Your task to perform on an android device: toggle priority inbox in the gmail app Image 0: 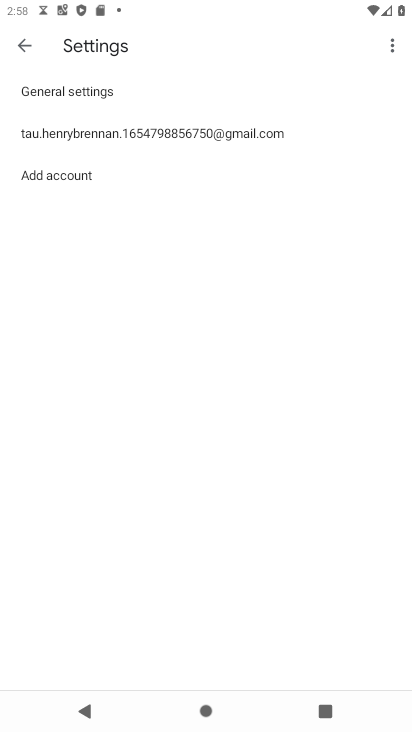
Step 0: press home button
Your task to perform on an android device: toggle priority inbox in the gmail app Image 1: 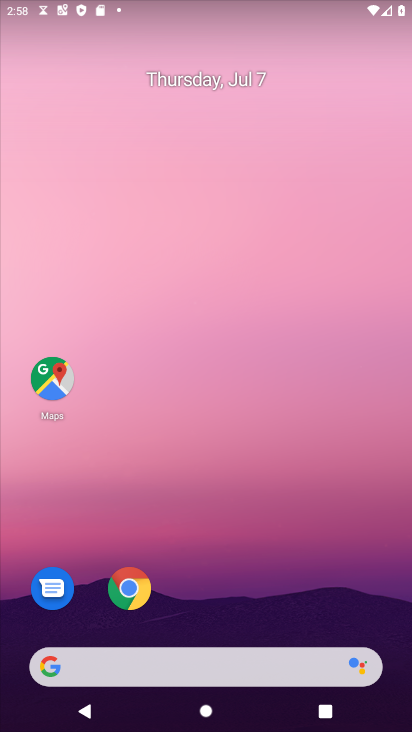
Step 1: drag from (240, 593) to (215, 131)
Your task to perform on an android device: toggle priority inbox in the gmail app Image 2: 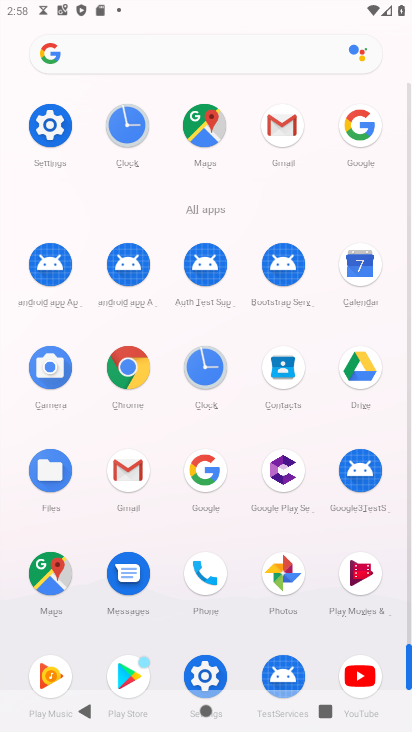
Step 2: click (282, 124)
Your task to perform on an android device: toggle priority inbox in the gmail app Image 3: 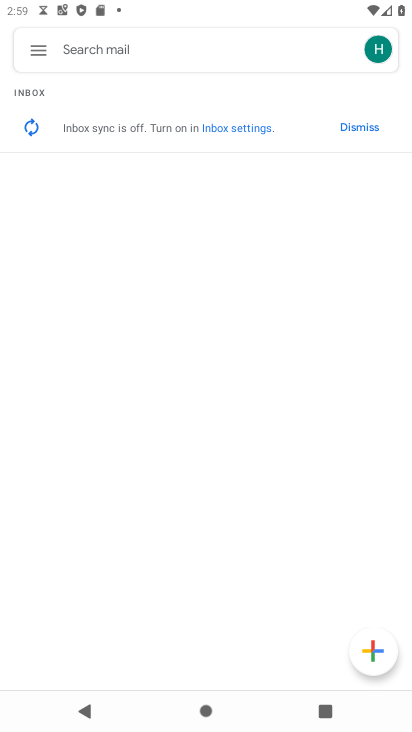
Step 3: click (45, 49)
Your task to perform on an android device: toggle priority inbox in the gmail app Image 4: 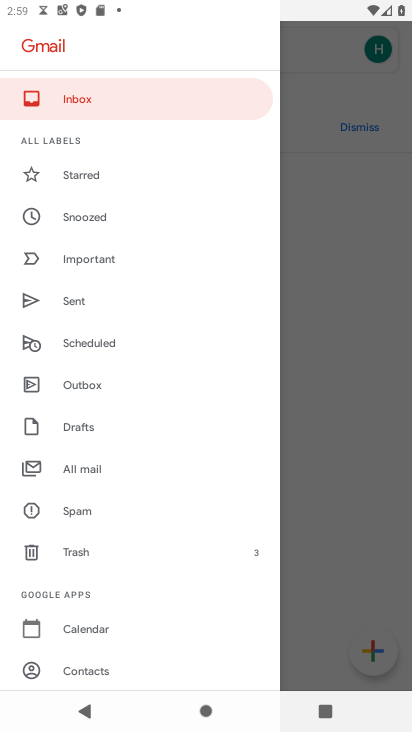
Step 4: drag from (106, 611) to (135, 505)
Your task to perform on an android device: toggle priority inbox in the gmail app Image 5: 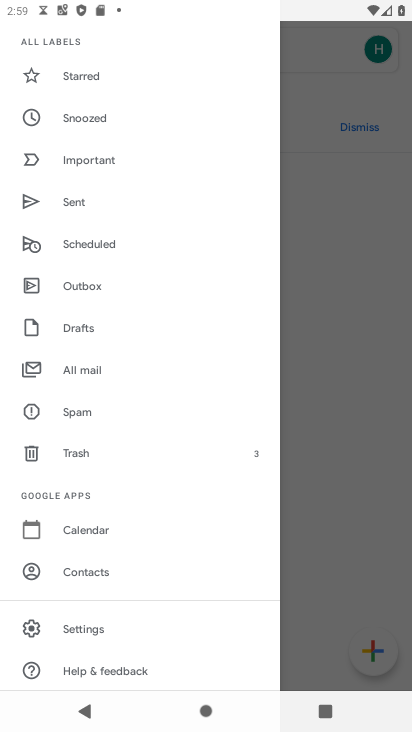
Step 5: click (81, 626)
Your task to perform on an android device: toggle priority inbox in the gmail app Image 6: 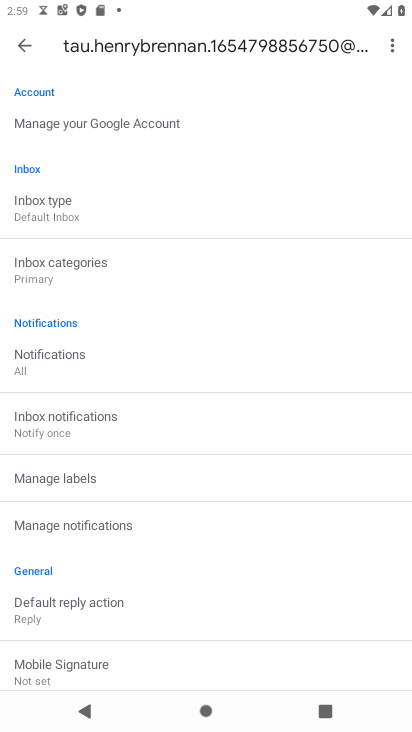
Step 6: drag from (95, 570) to (173, 450)
Your task to perform on an android device: toggle priority inbox in the gmail app Image 7: 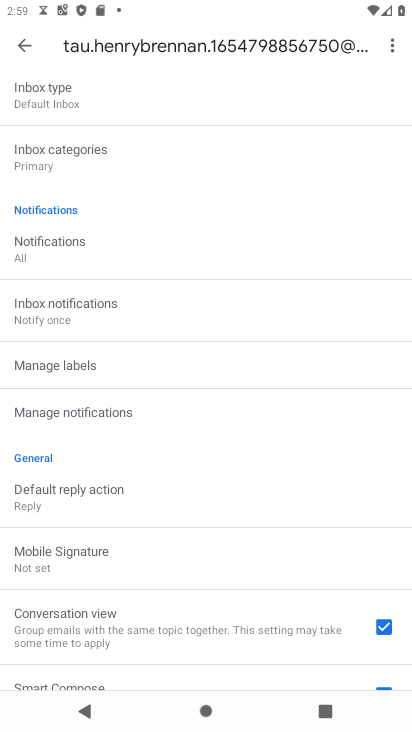
Step 7: click (70, 108)
Your task to perform on an android device: toggle priority inbox in the gmail app Image 8: 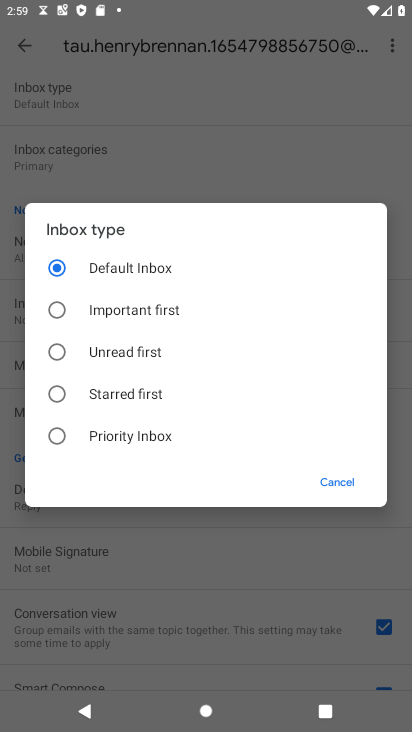
Step 8: click (62, 434)
Your task to perform on an android device: toggle priority inbox in the gmail app Image 9: 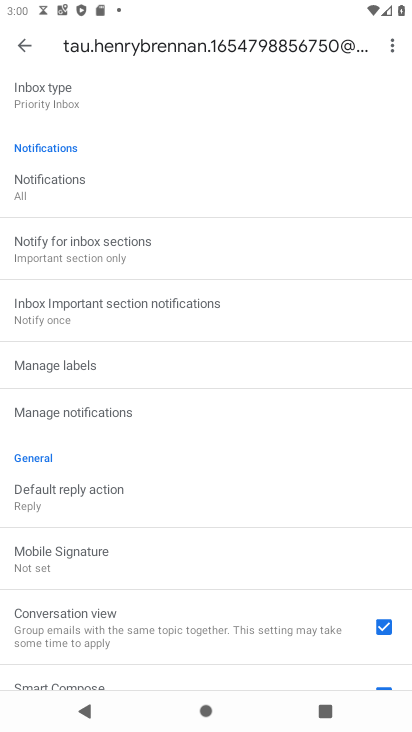
Step 9: task complete